Your task to perform on an android device: Open the Play Movies app and select the watchlist tab. Image 0: 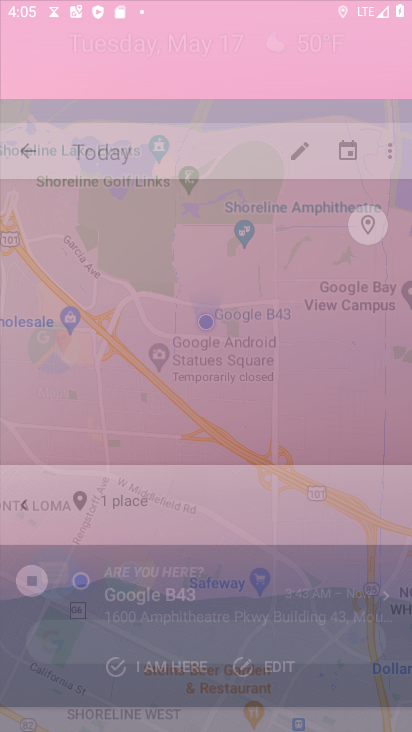
Step 0: click (192, 143)
Your task to perform on an android device: Open the Play Movies app and select the watchlist tab. Image 1: 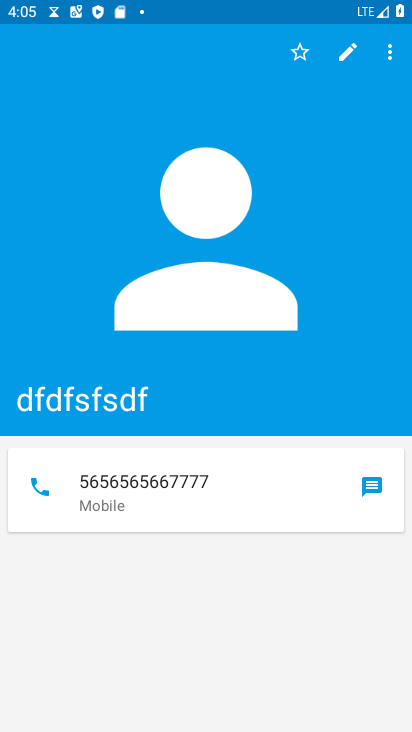
Step 1: press home button
Your task to perform on an android device: Open the Play Movies app and select the watchlist tab. Image 2: 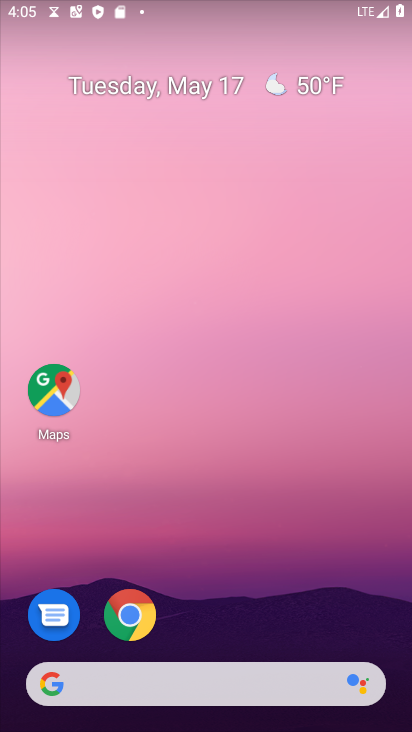
Step 2: drag from (308, 699) to (279, 148)
Your task to perform on an android device: Open the Play Movies app and select the watchlist tab. Image 3: 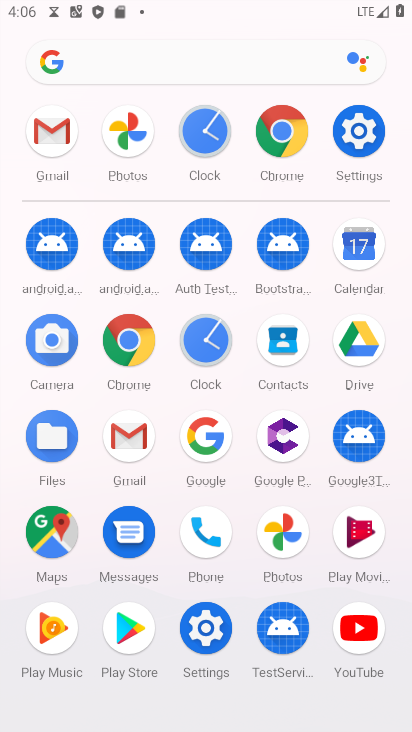
Step 3: click (350, 633)
Your task to perform on an android device: Open the Play Movies app and select the watchlist tab. Image 4: 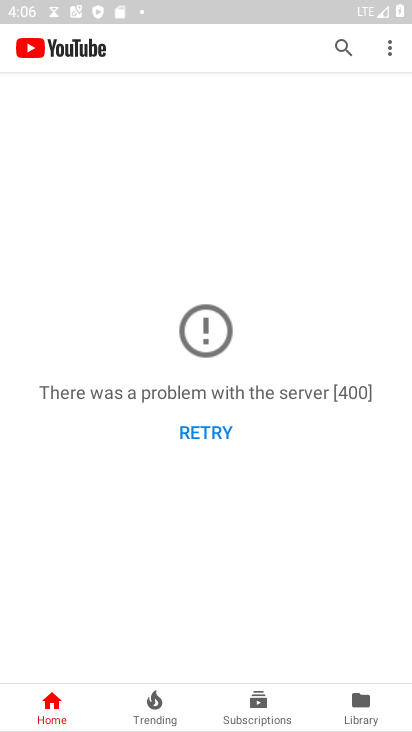
Step 4: task complete